Your task to perform on an android device: change notifications settings Image 0: 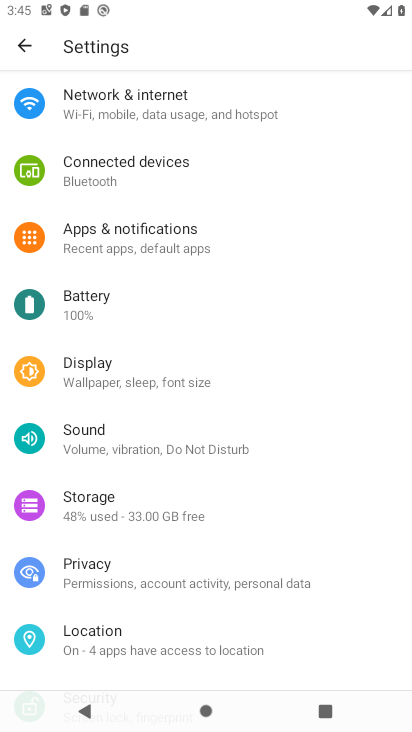
Step 0: click (176, 247)
Your task to perform on an android device: change notifications settings Image 1: 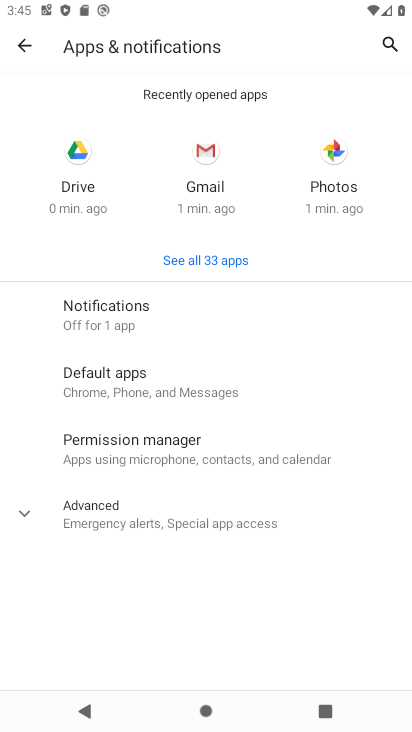
Step 1: click (173, 300)
Your task to perform on an android device: change notifications settings Image 2: 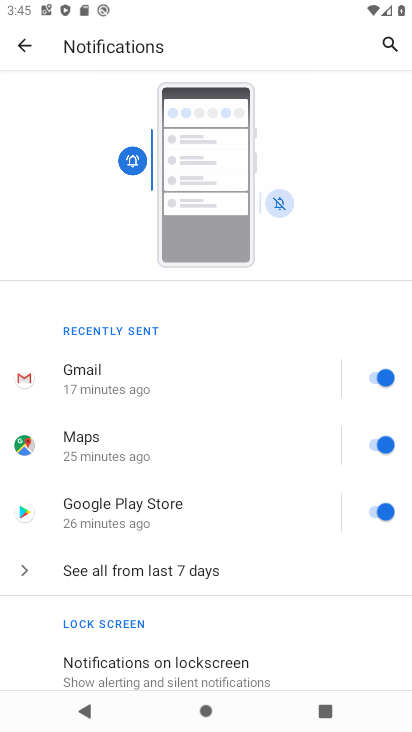
Step 2: drag from (211, 669) to (233, 369)
Your task to perform on an android device: change notifications settings Image 3: 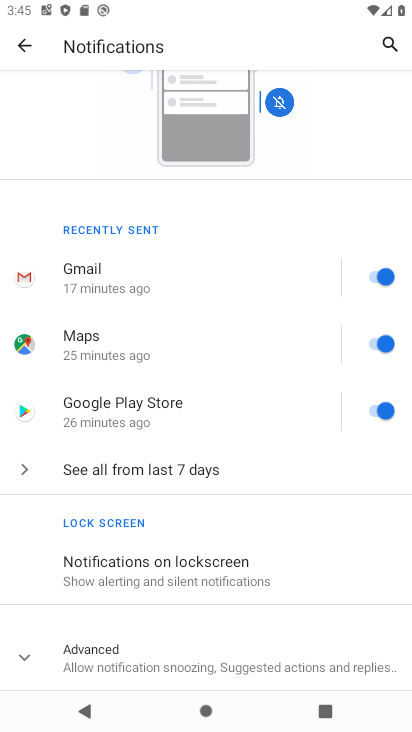
Step 3: click (159, 557)
Your task to perform on an android device: change notifications settings Image 4: 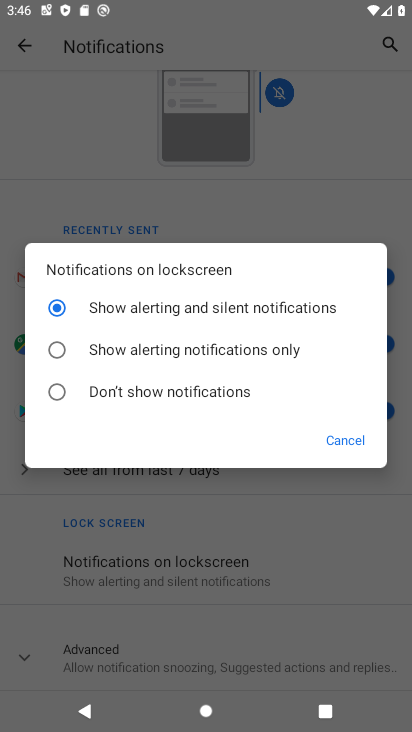
Step 4: click (149, 348)
Your task to perform on an android device: change notifications settings Image 5: 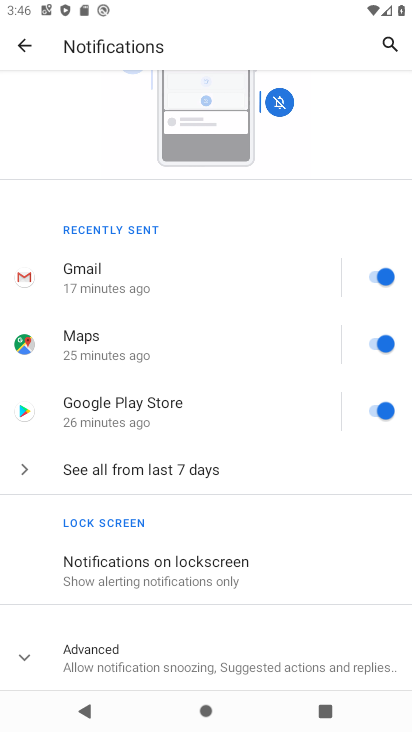
Step 5: task complete